Your task to perform on an android device: turn on the 12-hour format for clock Image 0: 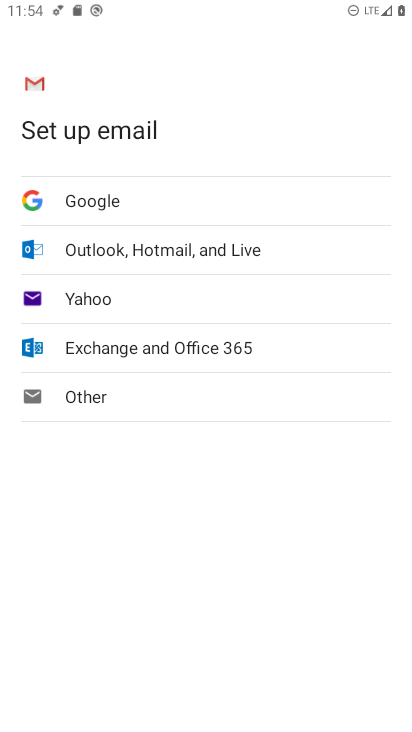
Step 0: press home button
Your task to perform on an android device: turn on the 12-hour format for clock Image 1: 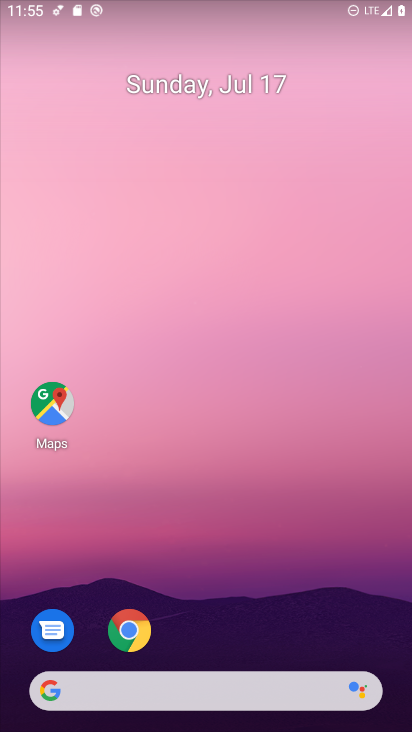
Step 1: drag from (168, 427) to (199, 54)
Your task to perform on an android device: turn on the 12-hour format for clock Image 2: 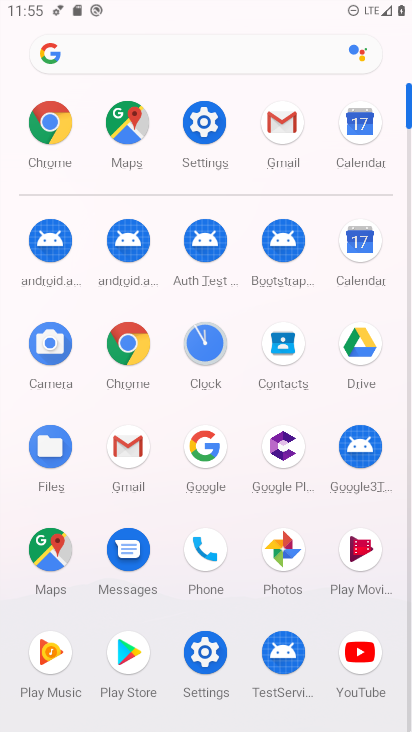
Step 2: click (199, 339)
Your task to perform on an android device: turn on the 12-hour format for clock Image 3: 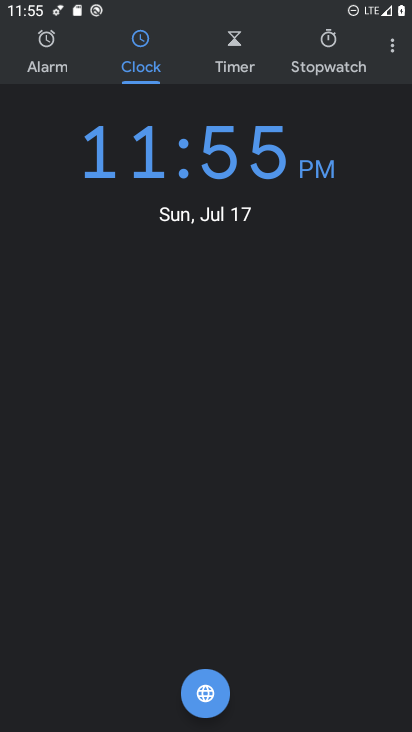
Step 3: click (395, 46)
Your task to perform on an android device: turn on the 12-hour format for clock Image 4: 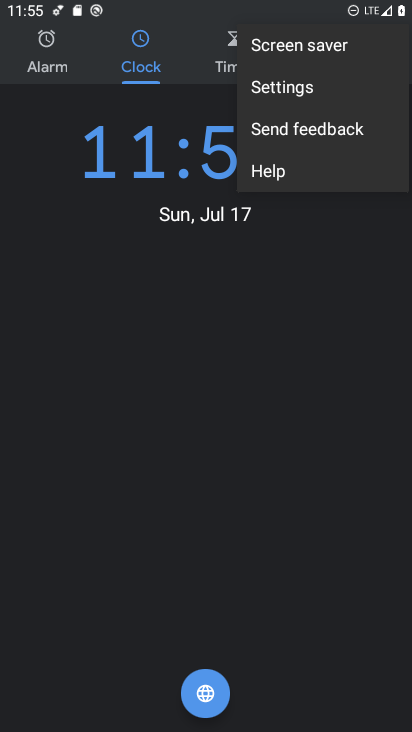
Step 4: click (292, 90)
Your task to perform on an android device: turn on the 12-hour format for clock Image 5: 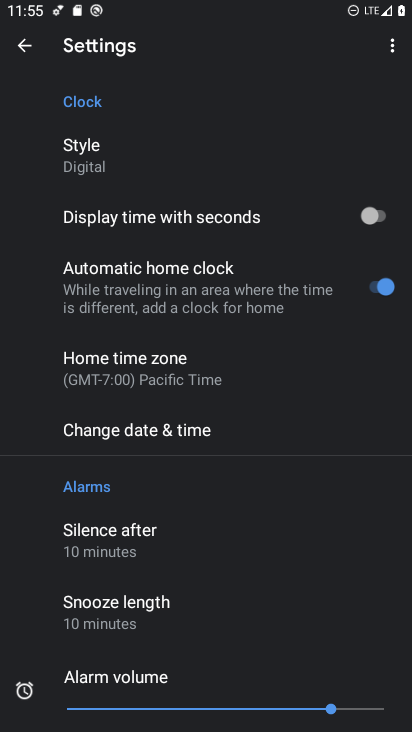
Step 5: drag from (203, 297) to (102, 508)
Your task to perform on an android device: turn on the 12-hour format for clock Image 6: 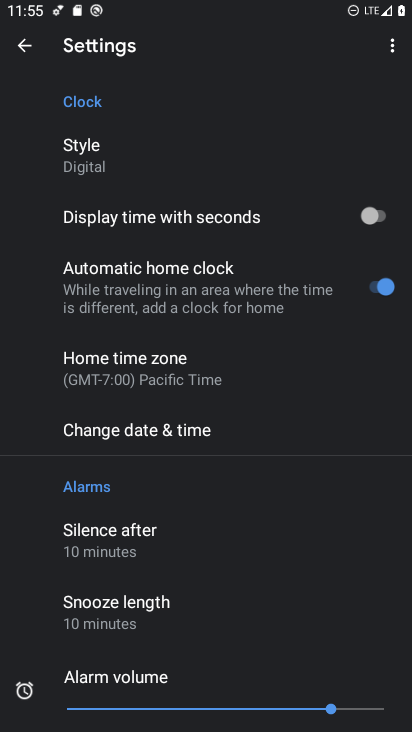
Step 6: click (120, 434)
Your task to perform on an android device: turn on the 12-hour format for clock Image 7: 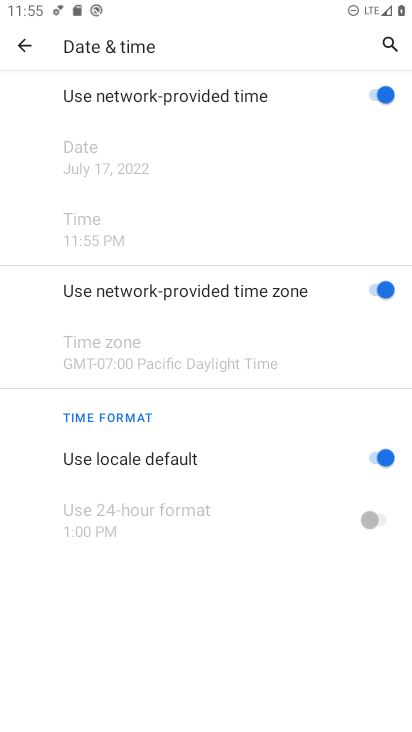
Step 7: task complete